Your task to perform on an android device: Open location settings Image 0: 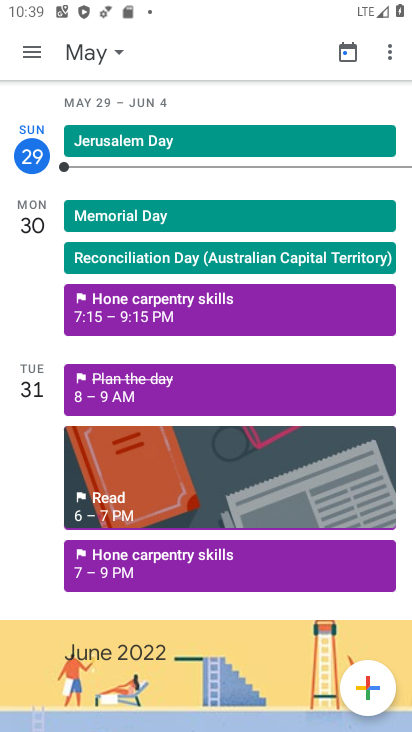
Step 0: press home button
Your task to perform on an android device: Open location settings Image 1: 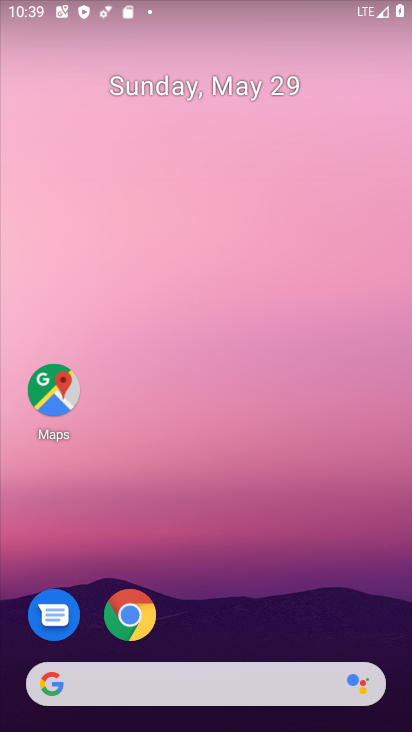
Step 1: drag from (281, 624) to (315, 318)
Your task to perform on an android device: Open location settings Image 2: 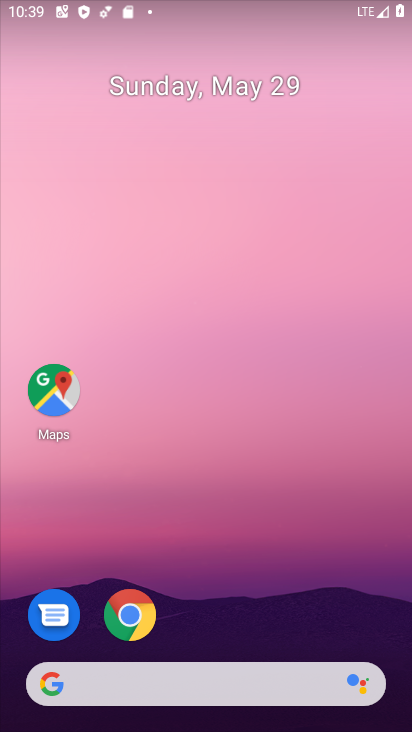
Step 2: drag from (352, 616) to (371, 277)
Your task to perform on an android device: Open location settings Image 3: 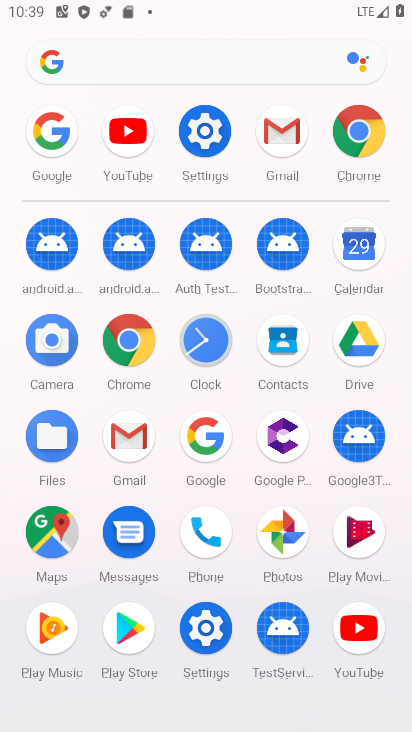
Step 3: click (212, 661)
Your task to perform on an android device: Open location settings Image 4: 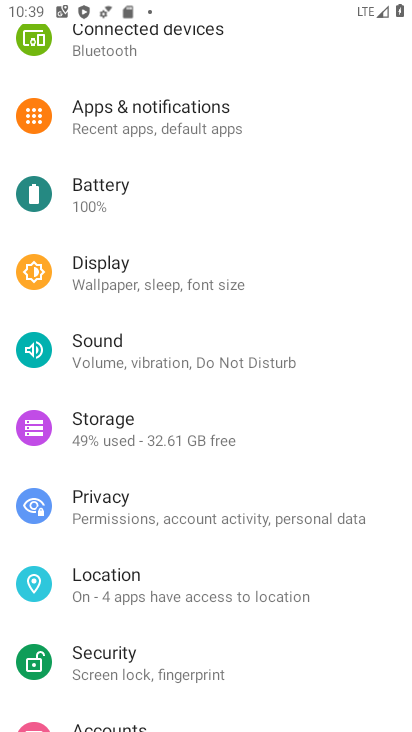
Step 4: drag from (344, 575) to (349, 493)
Your task to perform on an android device: Open location settings Image 5: 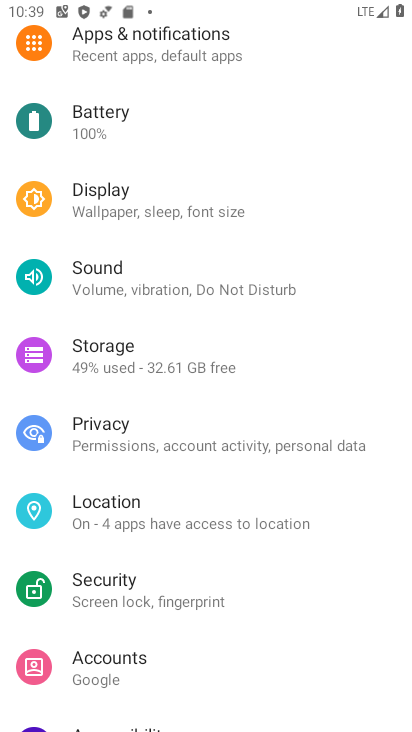
Step 5: drag from (348, 646) to (348, 530)
Your task to perform on an android device: Open location settings Image 6: 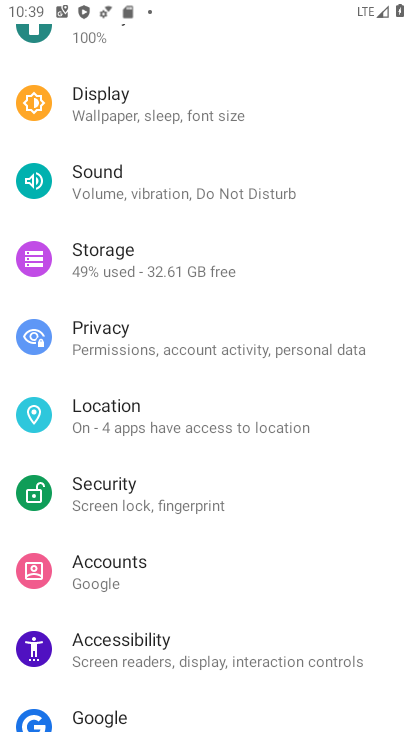
Step 6: drag from (361, 673) to (356, 611)
Your task to perform on an android device: Open location settings Image 7: 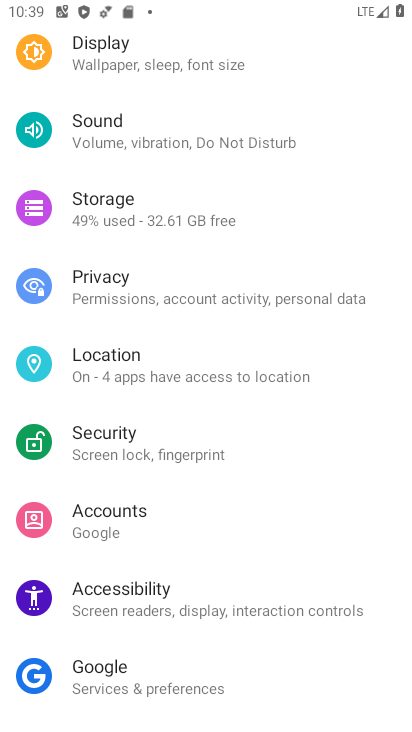
Step 7: drag from (357, 362) to (367, 503)
Your task to perform on an android device: Open location settings Image 8: 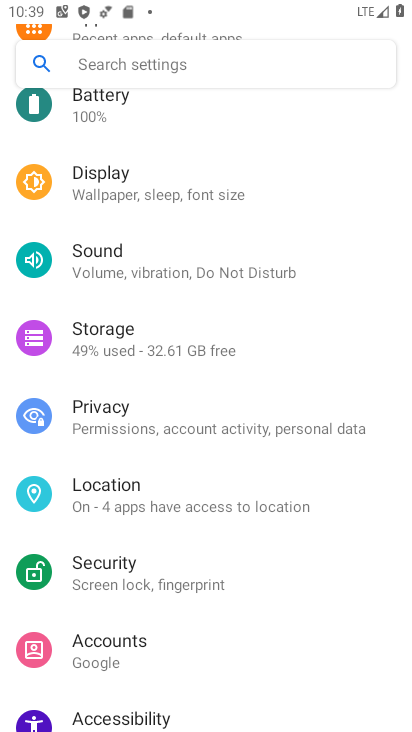
Step 8: drag from (358, 314) to (354, 362)
Your task to perform on an android device: Open location settings Image 9: 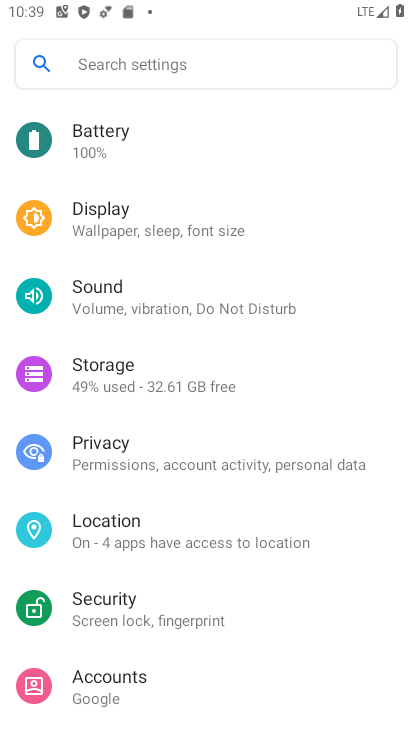
Step 9: click (201, 554)
Your task to perform on an android device: Open location settings Image 10: 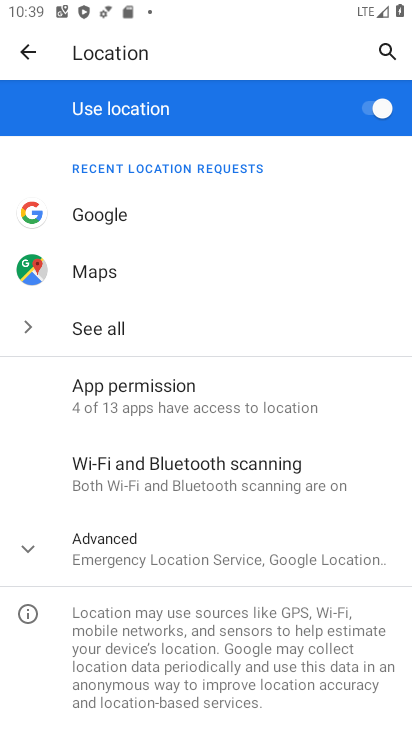
Step 10: task complete